Your task to perform on an android device: Set the phone to "Do not disturb". Image 0: 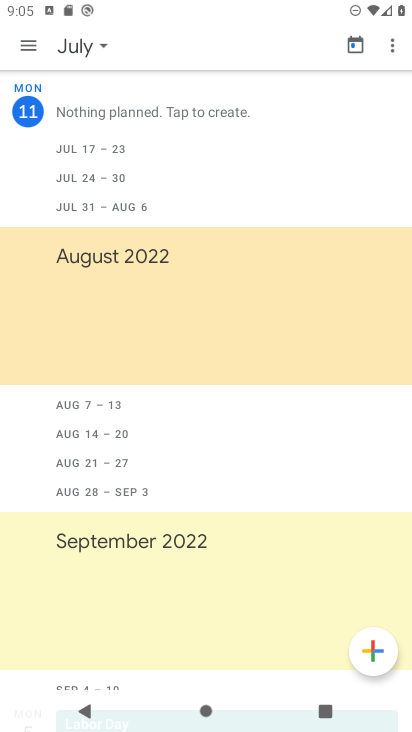
Step 0: press home button
Your task to perform on an android device: Set the phone to "Do not disturb". Image 1: 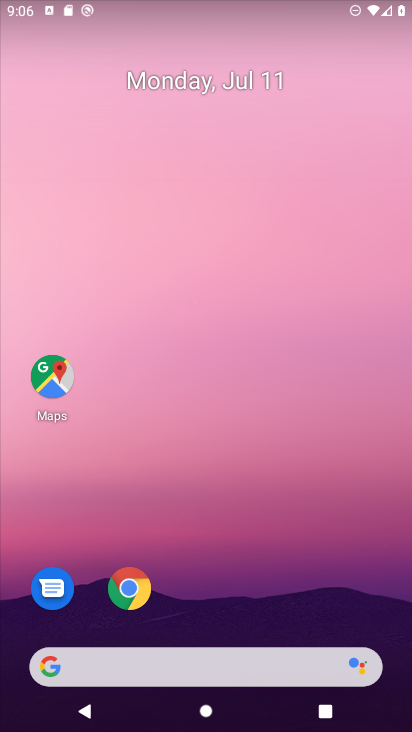
Step 1: task complete